Your task to perform on an android device: check data usage Image 0: 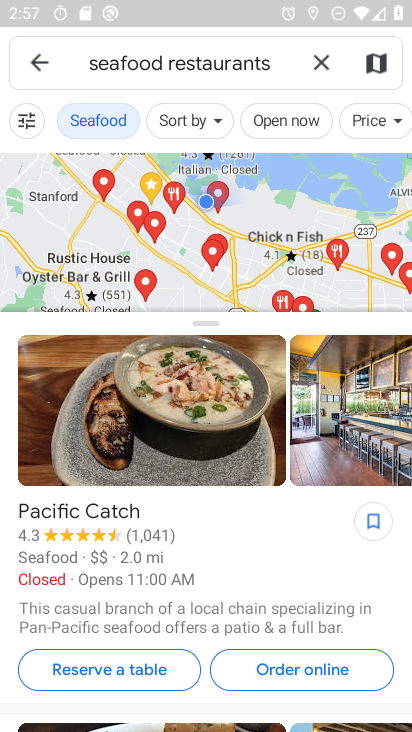
Step 0: press home button
Your task to perform on an android device: check data usage Image 1: 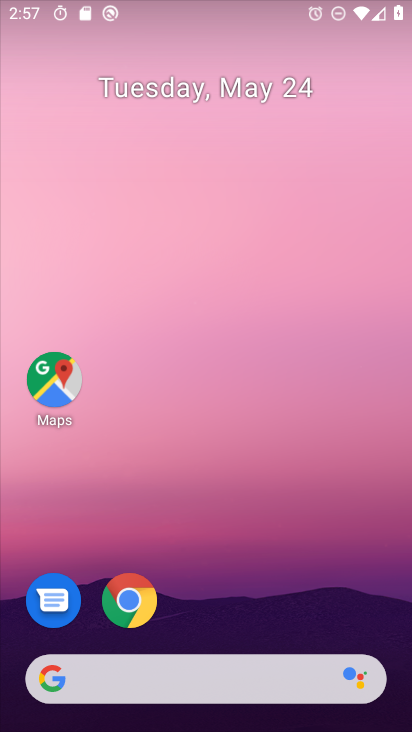
Step 1: drag from (350, 582) to (273, 170)
Your task to perform on an android device: check data usage Image 2: 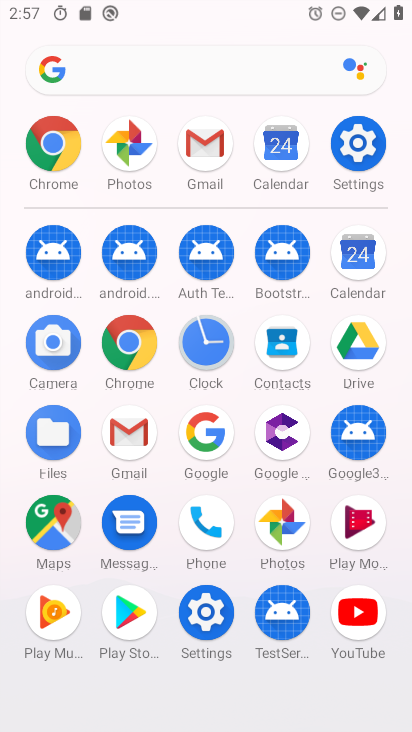
Step 2: click (362, 143)
Your task to perform on an android device: check data usage Image 3: 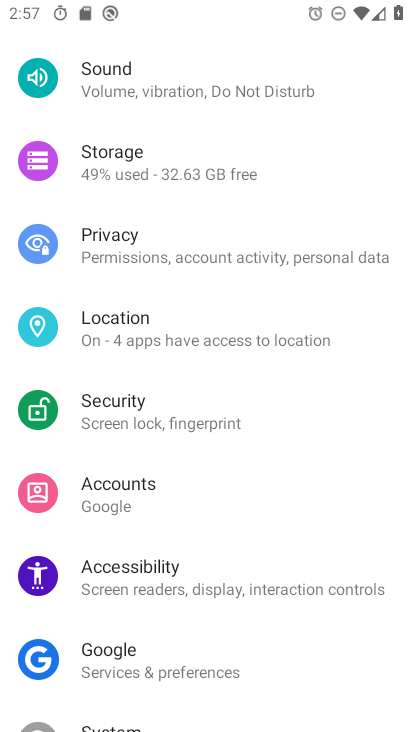
Step 3: drag from (227, 547) to (271, 144)
Your task to perform on an android device: check data usage Image 4: 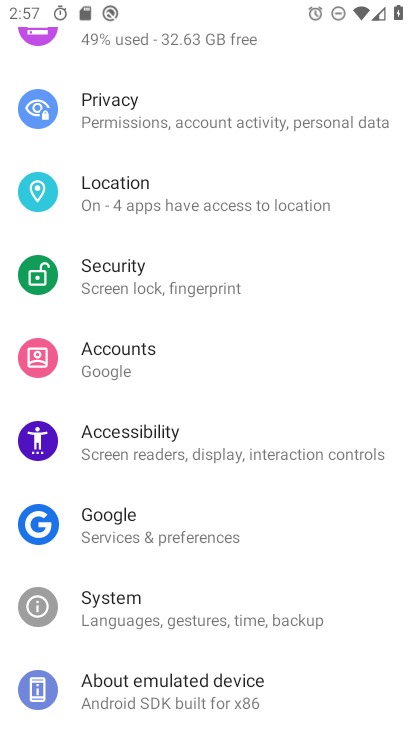
Step 4: drag from (273, 183) to (265, 606)
Your task to perform on an android device: check data usage Image 5: 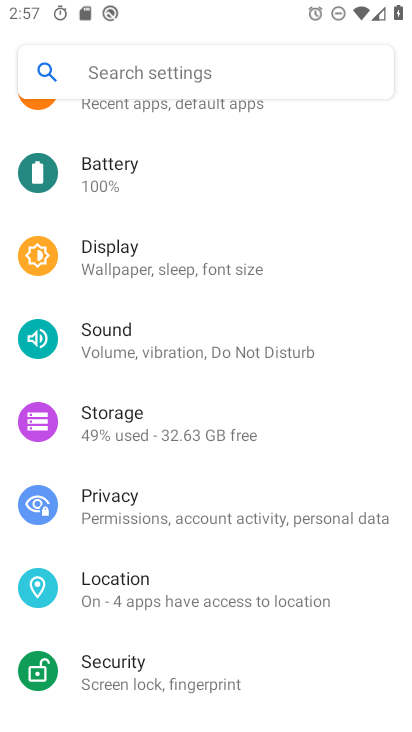
Step 5: drag from (221, 188) to (255, 564)
Your task to perform on an android device: check data usage Image 6: 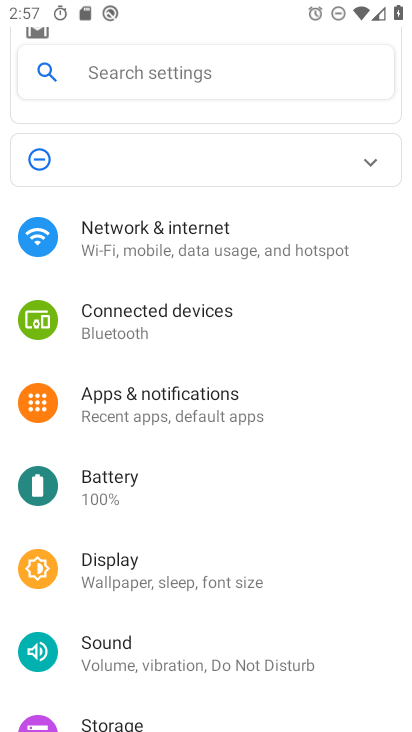
Step 6: click (194, 225)
Your task to perform on an android device: check data usage Image 7: 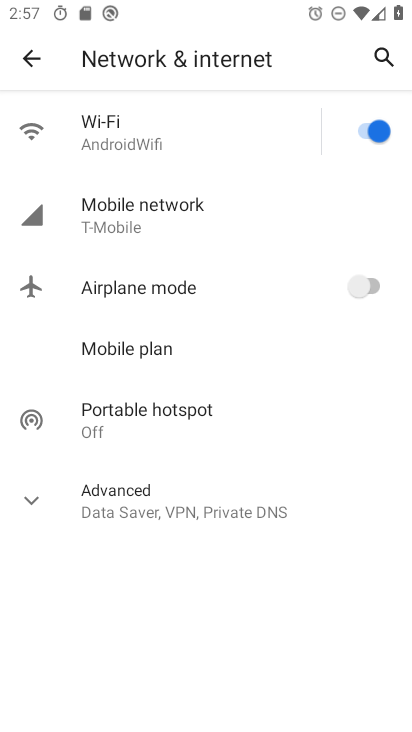
Step 7: click (188, 216)
Your task to perform on an android device: check data usage Image 8: 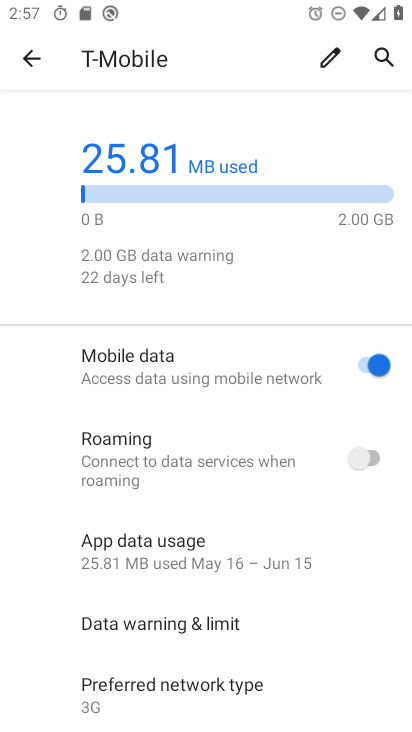
Step 8: task complete